Your task to perform on an android device: Go to Google maps Image 0: 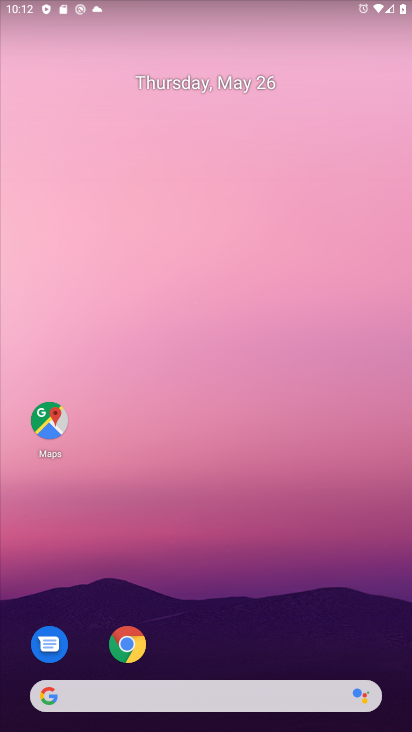
Step 0: click (55, 438)
Your task to perform on an android device: Go to Google maps Image 1: 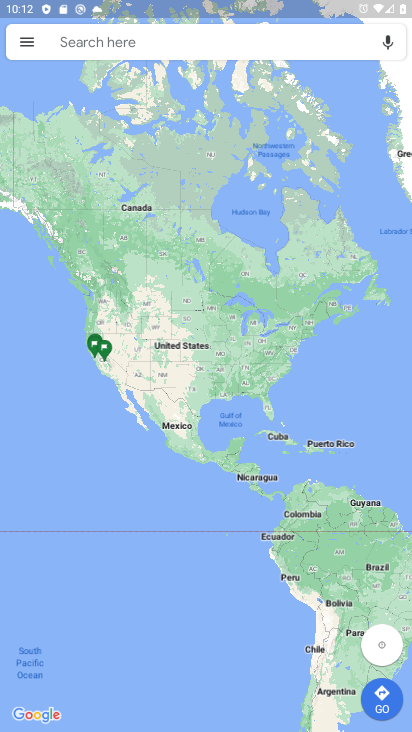
Step 1: task complete